Your task to perform on an android device: open chrome privacy settings Image 0: 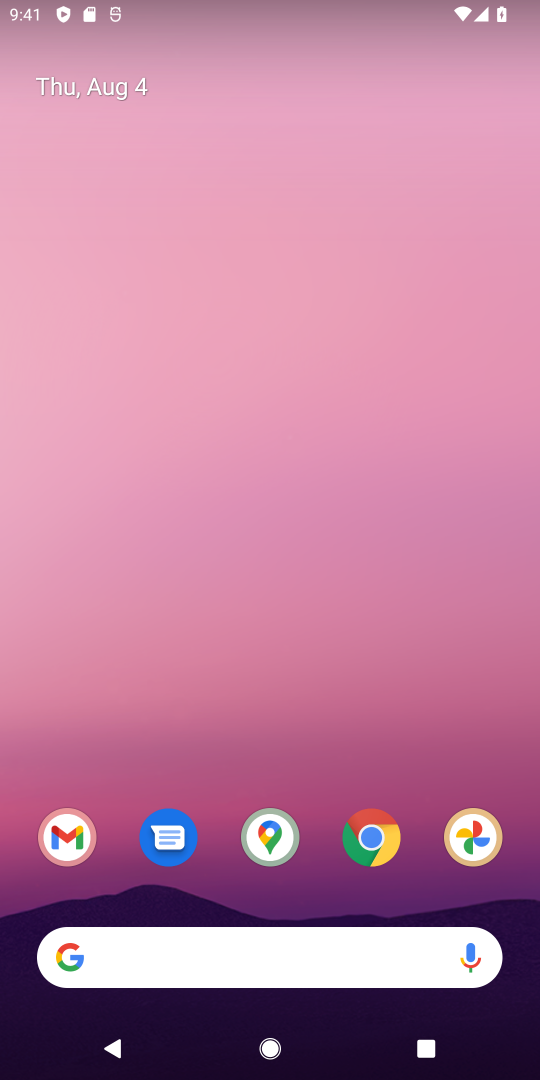
Step 0: drag from (411, 788) to (258, 133)
Your task to perform on an android device: open chrome privacy settings Image 1: 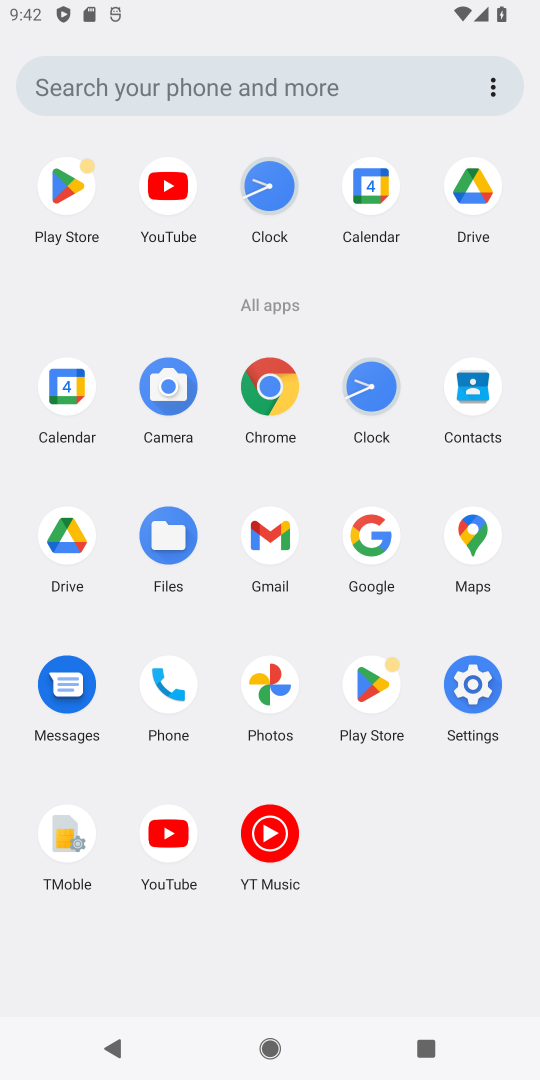
Step 1: click (255, 386)
Your task to perform on an android device: open chrome privacy settings Image 2: 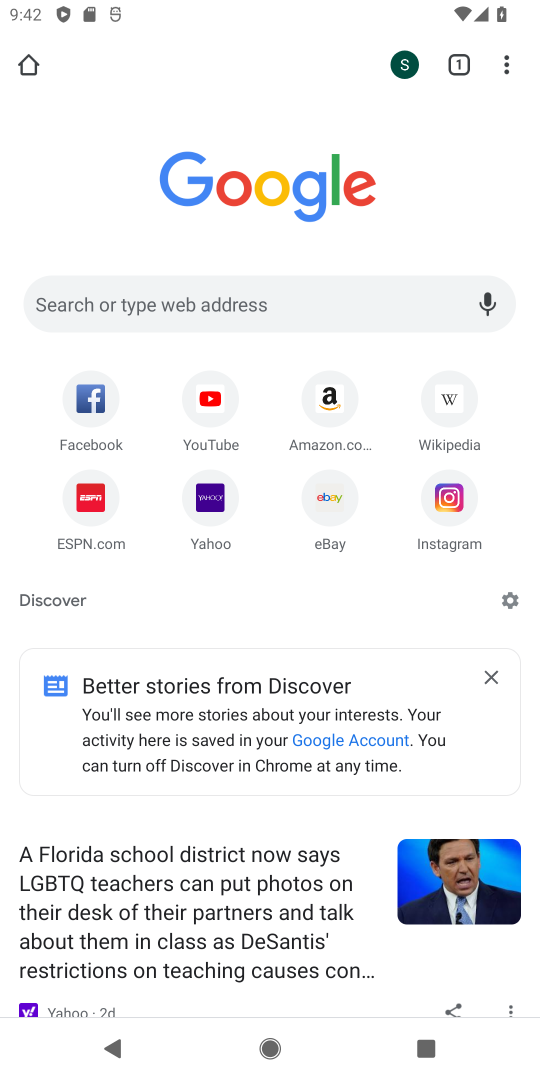
Step 2: click (503, 70)
Your task to perform on an android device: open chrome privacy settings Image 3: 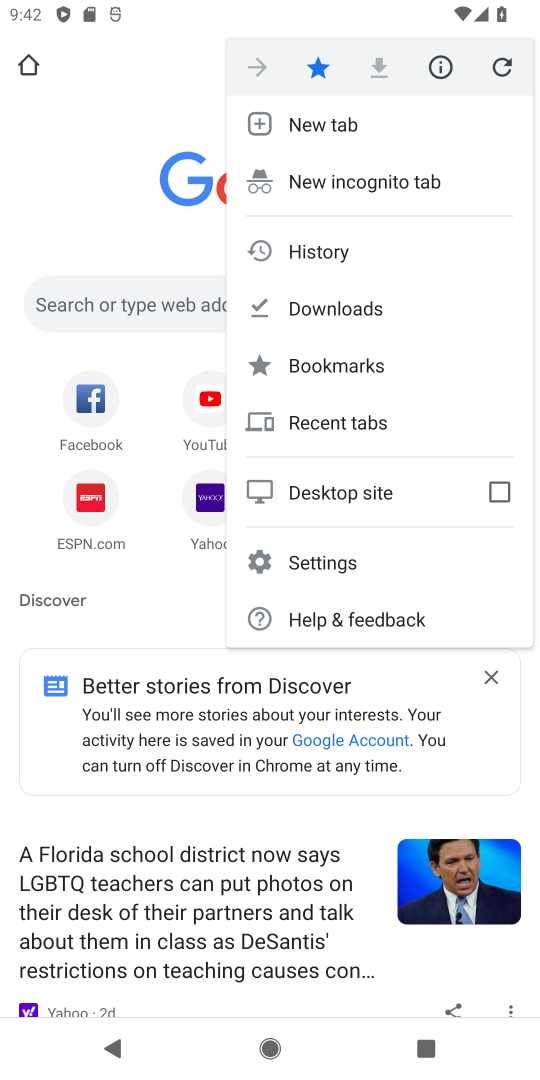
Step 3: click (335, 559)
Your task to perform on an android device: open chrome privacy settings Image 4: 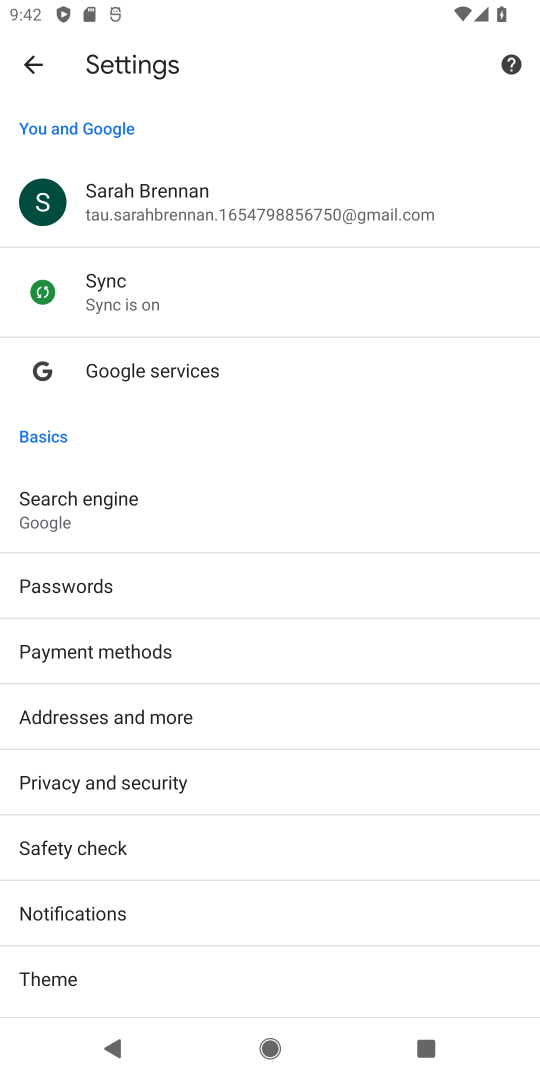
Step 4: click (104, 792)
Your task to perform on an android device: open chrome privacy settings Image 5: 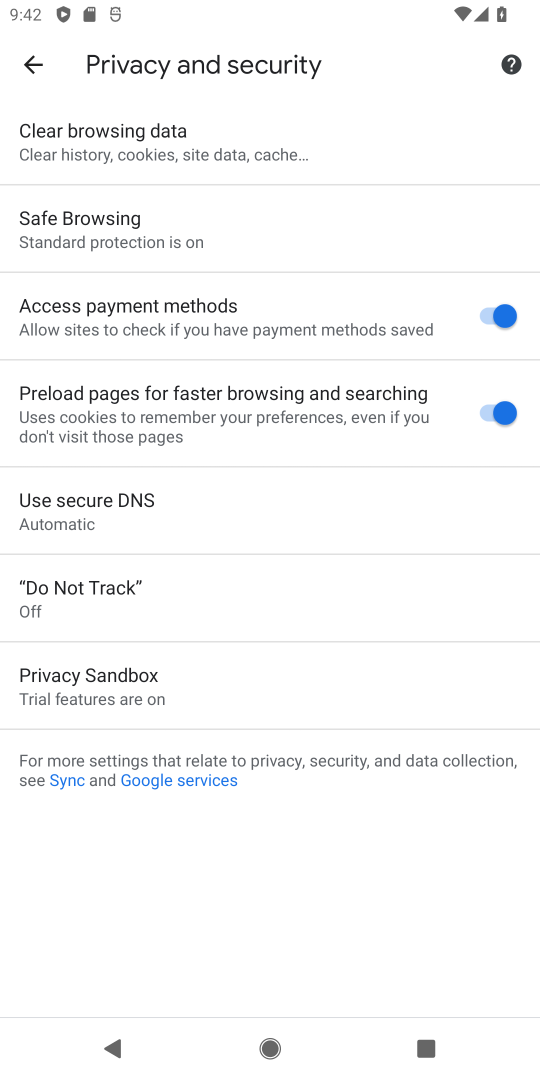
Step 5: task complete